Your task to perform on an android device: turn off smart reply in the gmail app Image 0: 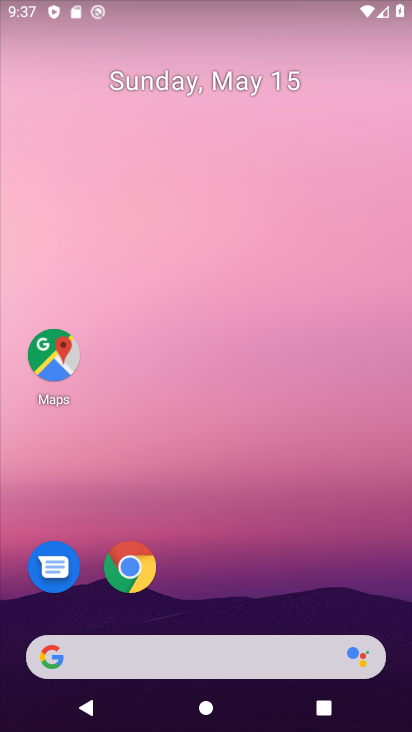
Step 0: drag from (239, 561) to (205, 61)
Your task to perform on an android device: turn off smart reply in the gmail app Image 1: 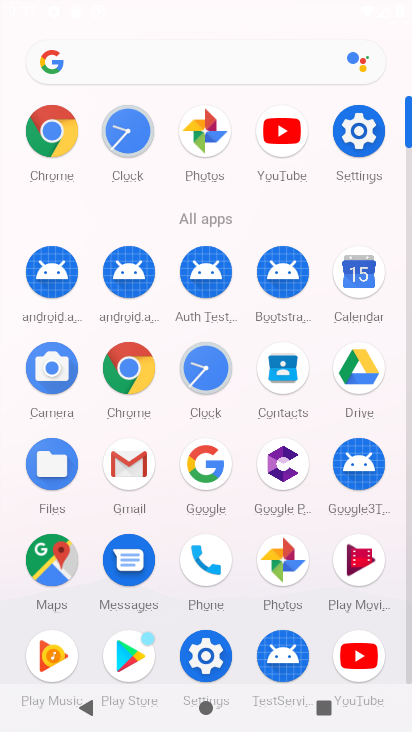
Step 1: click (133, 461)
Your task to perform on an android device: turn off smart reply in the gmail app Image 2: 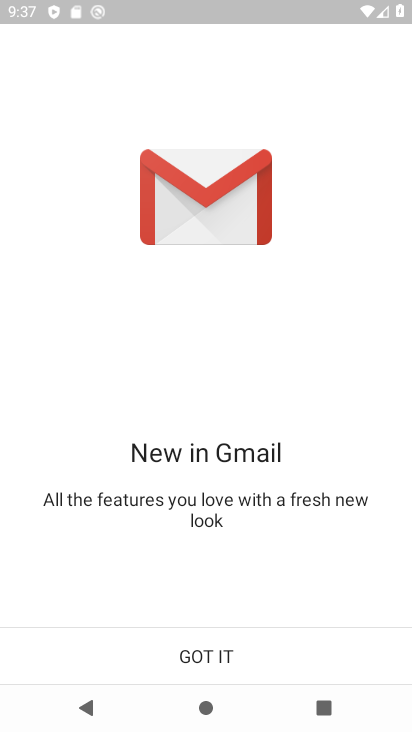
Step 2: click (228, 646)
Your task to perform on an android device: turn off smart reply in the gmail app Image 3: 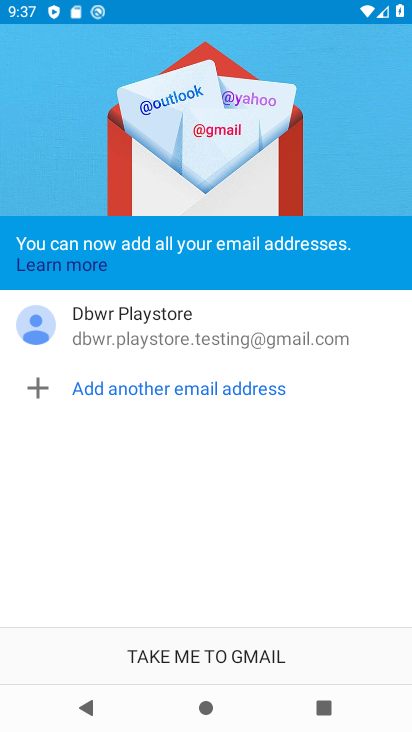
Step 3: click (228, 646)
Your task to perform on an android device: turn off smart reply in the gmail app Image 4: 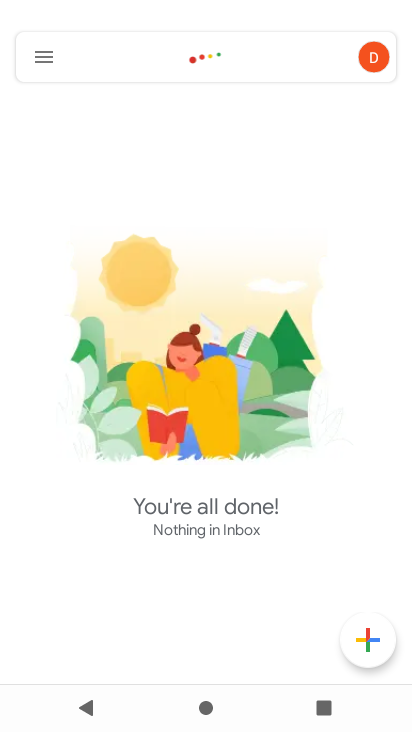
Step 4: click (50, 51)
Your task to perform on an android device: turn off smart reply in the gmail app Image 5: 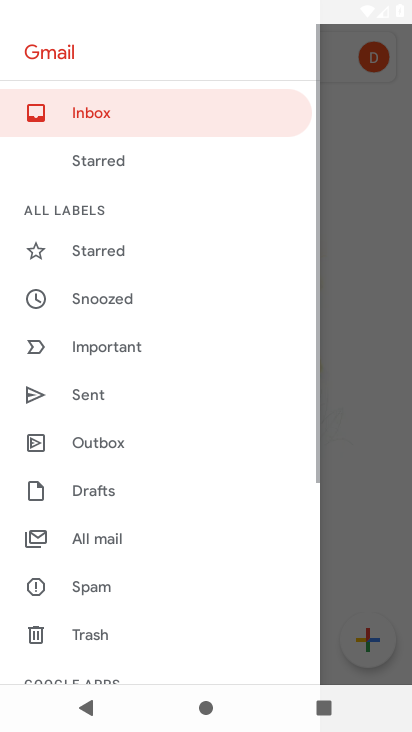
Step 5: drag from (187, 618) to (162, 207)
Your task to perform on an android device: turn off smart reply in the gmail app Image 6: 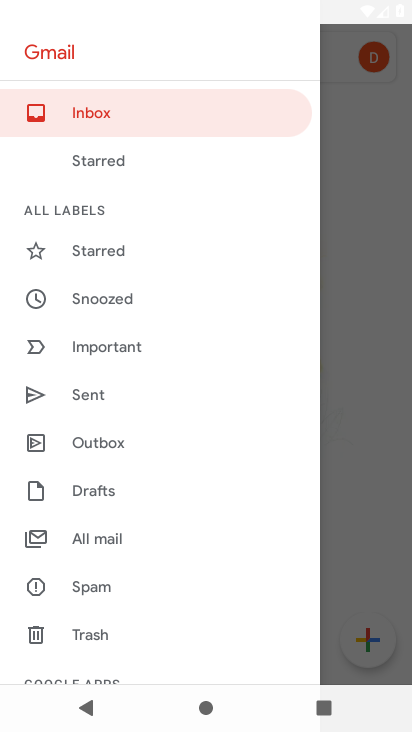
Step 6: drag from (125, 564) to (181, 184)
Your task to perform on an android device: turn off smart reply in the gmail app Image 7: 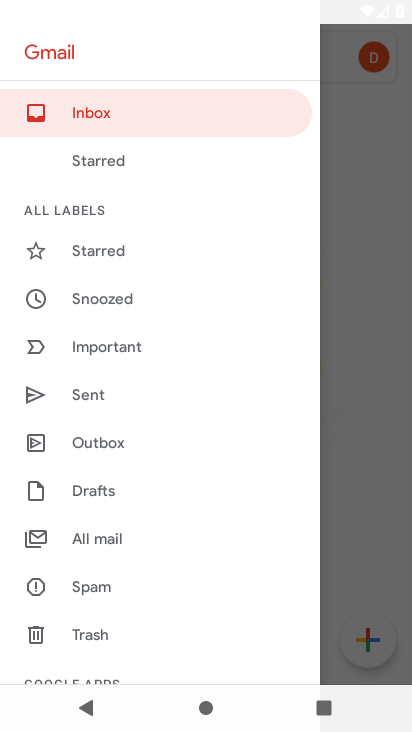
Step 7: drag from (160, 552) to (155, 117)
Your task to perform on an android device: turn off smart reply in the gmail app Image 8: 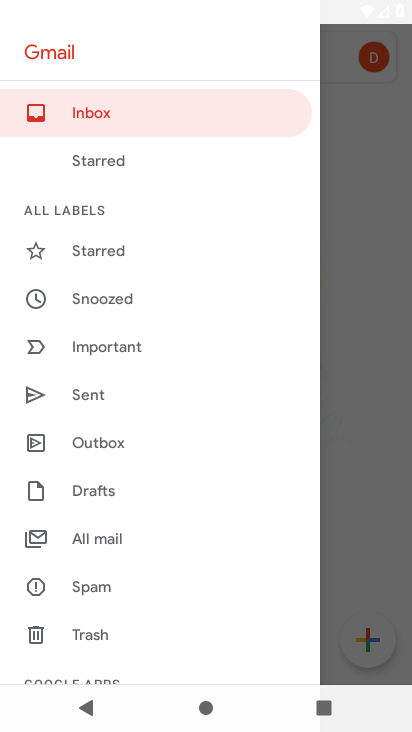
Step 8: drag from (102, 606) to (146, 129)
Your task to perform on an android device: turn off smart reply in the gmail app Image 9: 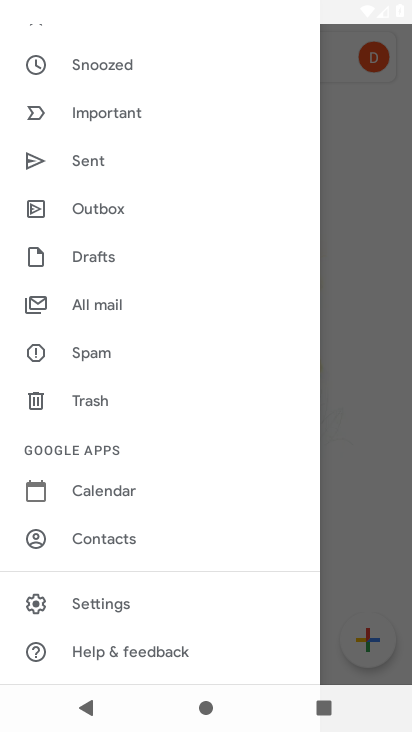
Step 9: click (112, 601)
Your task to perform on an android device: turn off smart reply in the gmail app Image 10: 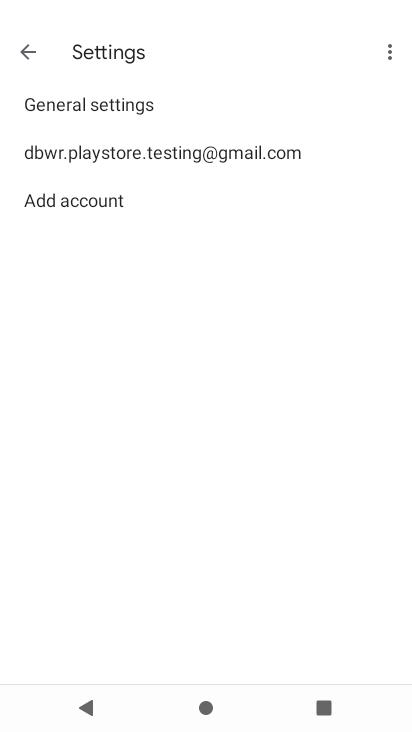
Step 10: click (101, 163)
Your task to perform on an android device: turn off smart reply in the gmail app Image 11: 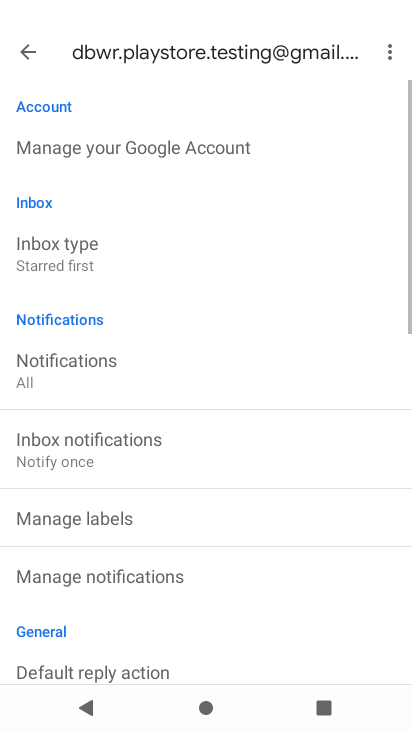
Step 11: drag from (192, 656) to (172, 172)
Your task to perform on an android device: turn off smart reply in the gmail app Image 12: 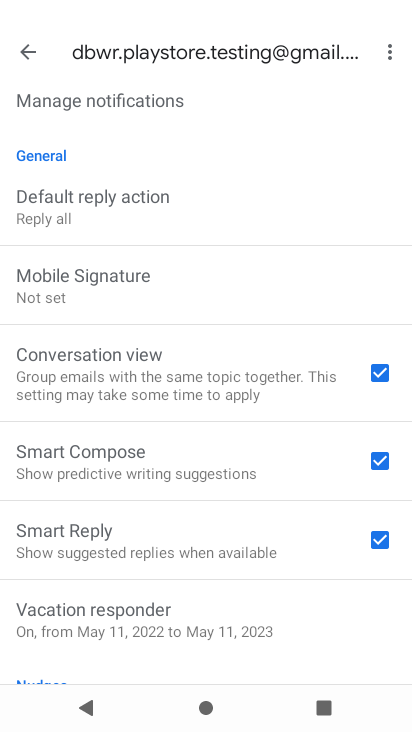
Step 12: click (383, 532)
Your task to perform on an android device: turn off smart reply in the gmail app Image 13: 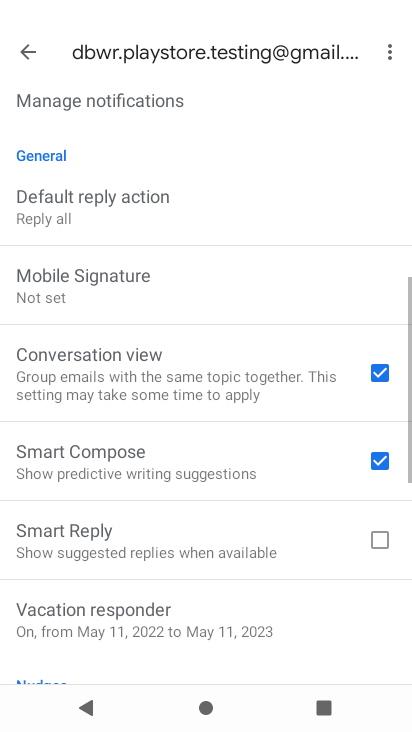
Step 13: task complete